Your task to perform on an android device: move an email to a new category in the gmail app Image 0: 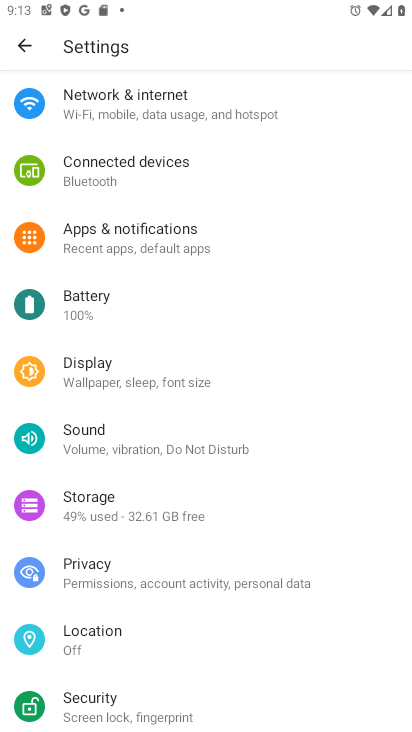
Step 0: press home button
Your task to perform on an android device: move an email to a new category in the gmail app Image 1: 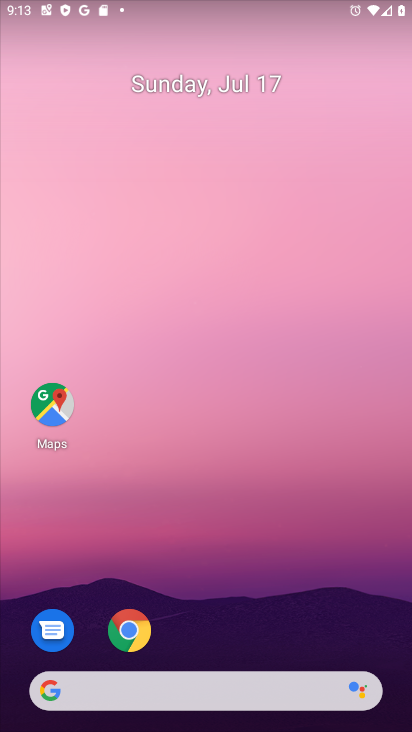
Step 1: drag from (195, 634) to (205, 288)
Your task to perform on an android device: move an email to a new category in the gmail app Image 2: 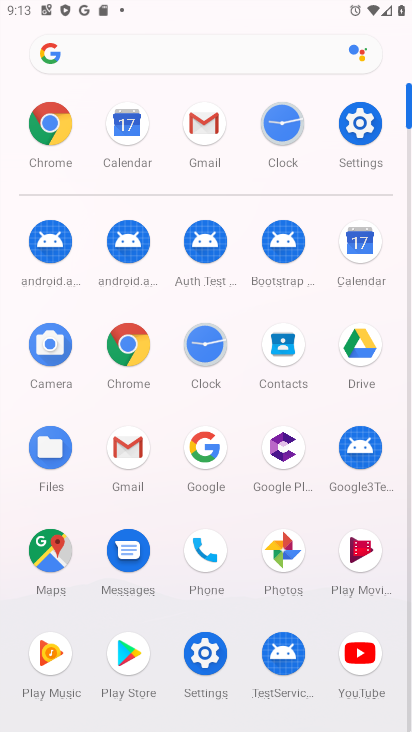
Step 2: click (200, 148)
Your task to perform on an android device: move an email to a new category in the gmail app Image 3: 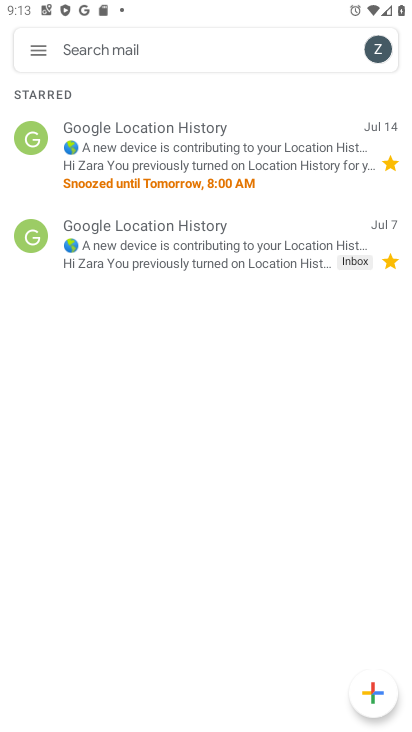
Step 3: click (146, 147)
Your task to perform on an android device: move an email to a new category in the gmail app Image 4: 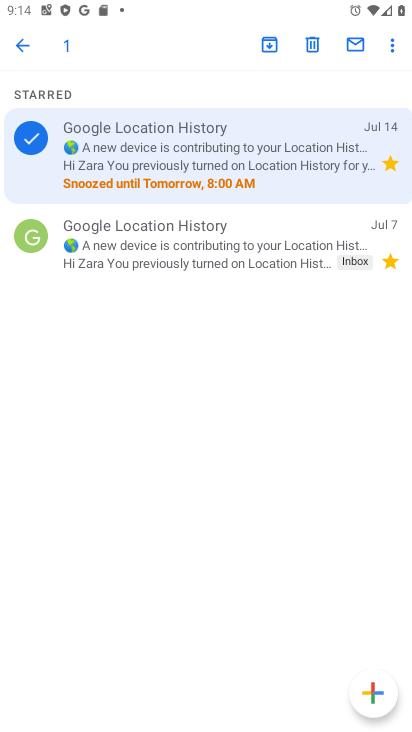
Step 4: click (393, 48)
Your task to perform on an android device: move an email to a new category in the gmail app Image 5: 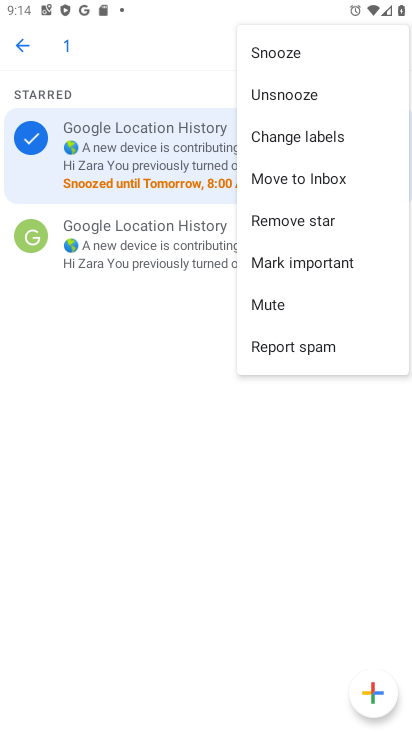
Step 5: click (283, 178)
Your task to perform on an android device: move an email to a new category in the gmail app Image 6: 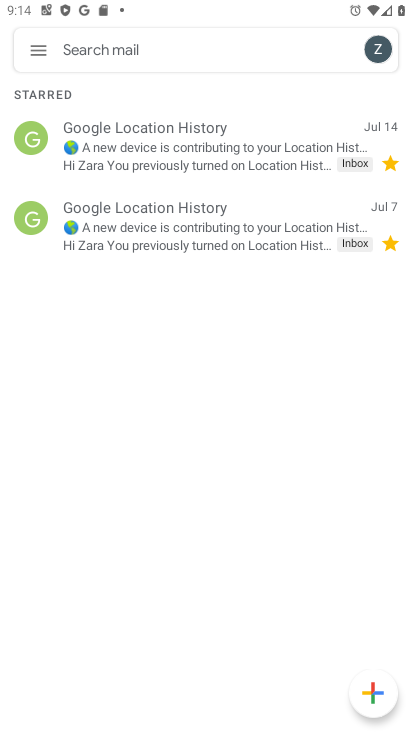
Step 6: task complete